Your task to perform on an android device: read, delete, or share a saved page in the chrome app Image 0: 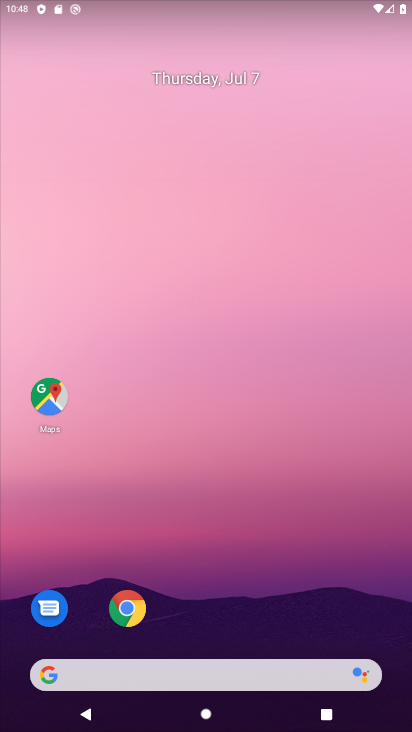
Step 0: click (124, 608)
Your task to perform on an android device: read, delete, or share a saved page in the chrome app Image 1: 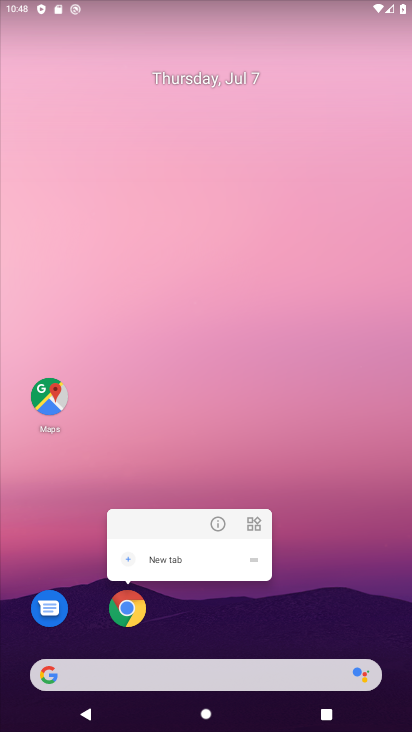
Step 1: click (126, 606)
Your task to perform on an android device: read, delete, or share a saved page in the chrome app Image 2: 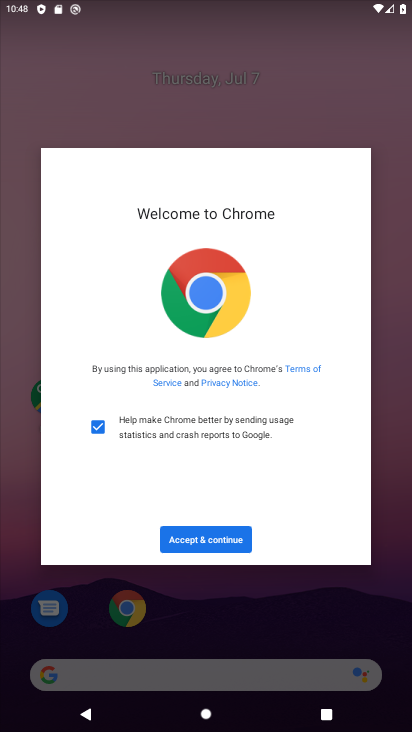
Step 2: click (224, 534)
Your task to perform on an android device: read, delete, or share a saved page in the chrome app Image 3: 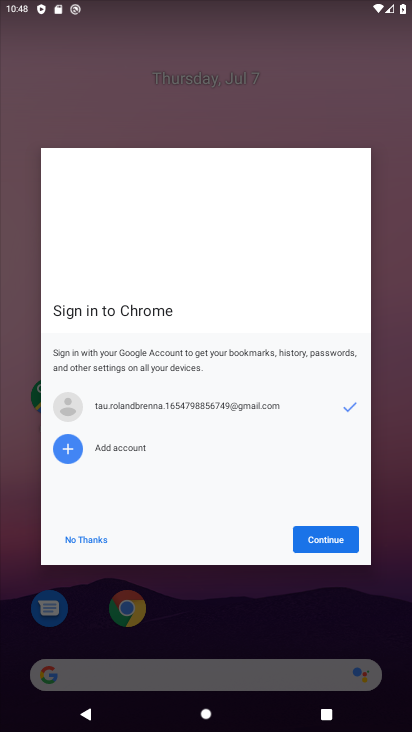
Step 3: click (88, 543)
Your task to perform on an android device: read, delete, or share a saved page in the chrome app Image 4: 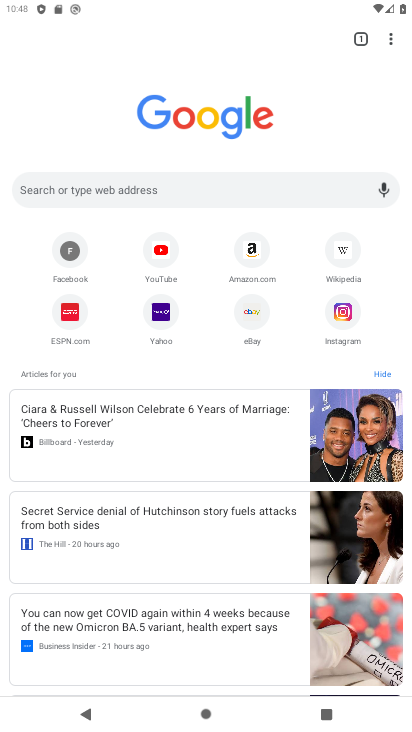
Step 4: click (70, 258)
Your task to perform on an android device: read, delete, or share a saved page in the chrome app Image 5: 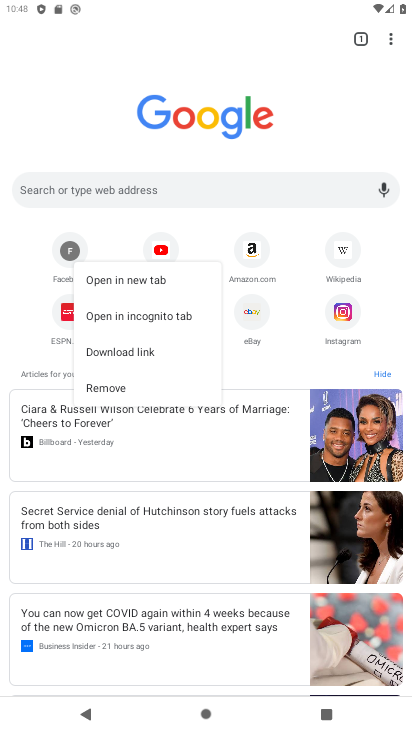
Step 5: click (89, 390)
Your task to perform on an android device: read, delete, or share a saved page in the chrome app Image 6: 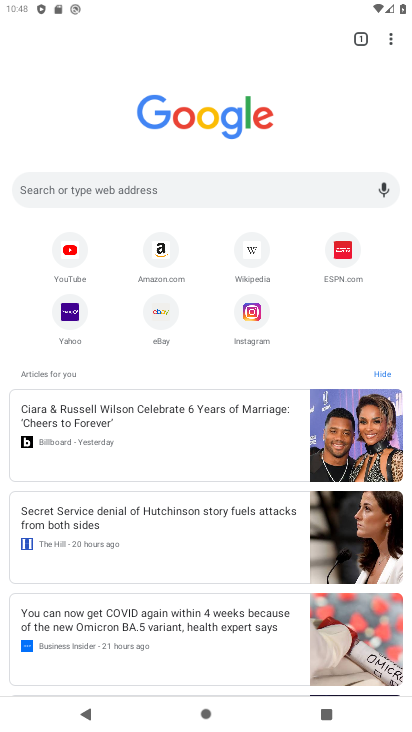
Step 6: task complete